Your task to perform on an android device: empty trash in google photos Image 0: 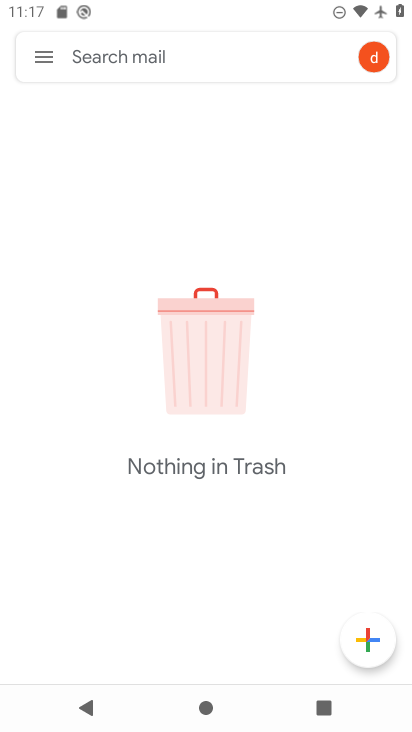
Step 0: click (30, 65)
Your task to perform on an android device: empty trash in google photos Image 1: 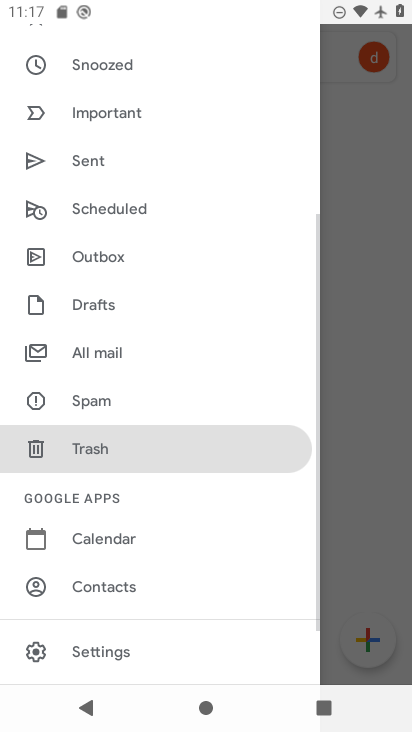
Step 1: click (101, 446)
Your task to perform on an android device: empty trash in google photos Image 2: 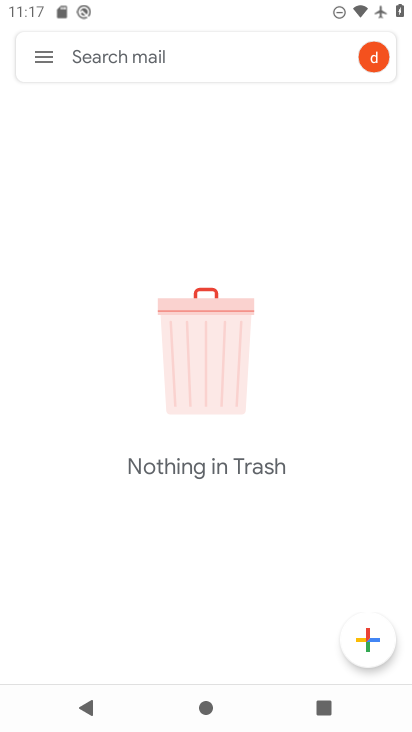
Step 2: task complete